Your task to perform on an android device: Go to eBay Image 0: 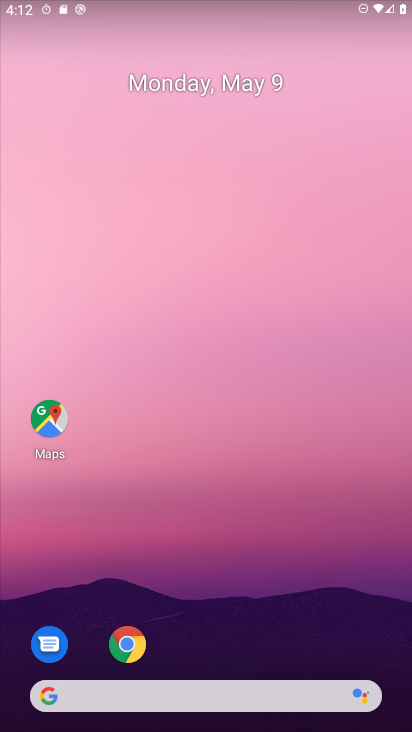
Step 0: click (126, 654)
Your task to perform on an android device: Go to eBay Image 1: 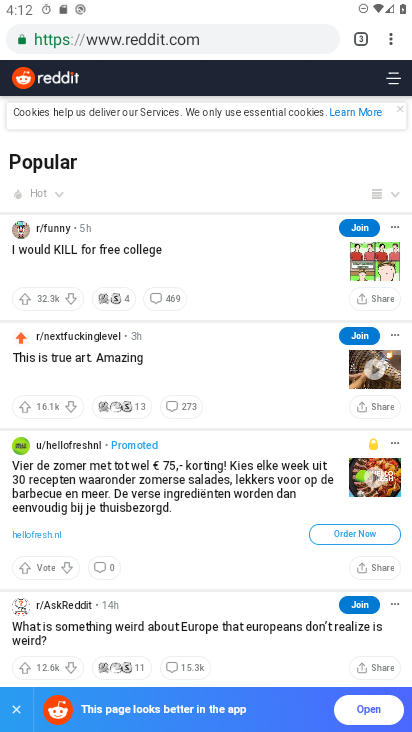
Step 1: click (200, 44)
Your task to perform on an android device: Go to eBay Image 2: 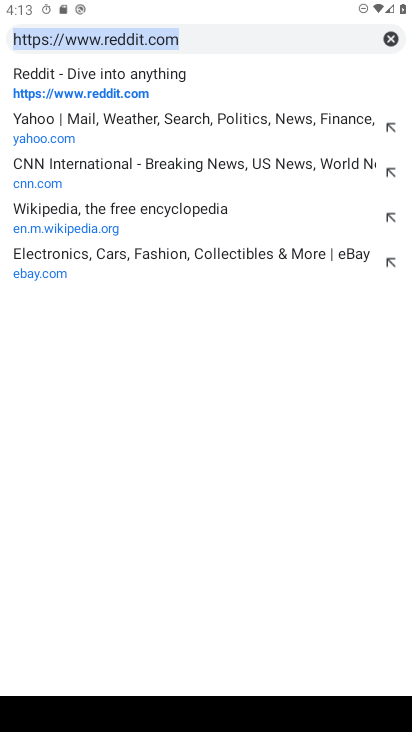
Step 2: click (123, 274)
Your task to perform on an android device: Go to eBay Image 3: 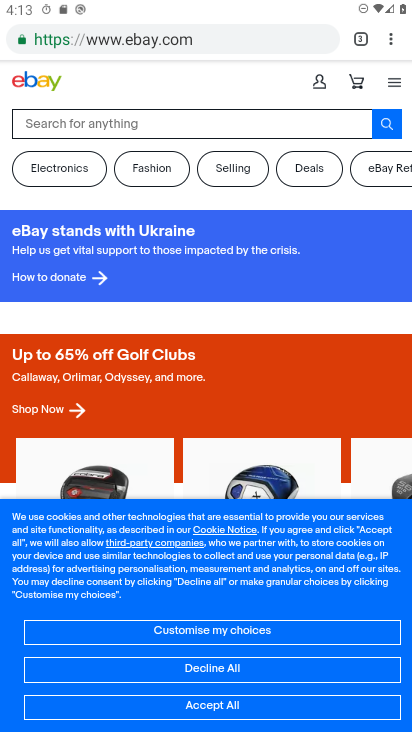
Step 3: task complete